Your task to perform on an android device: Is it going to rain today? Image 0: 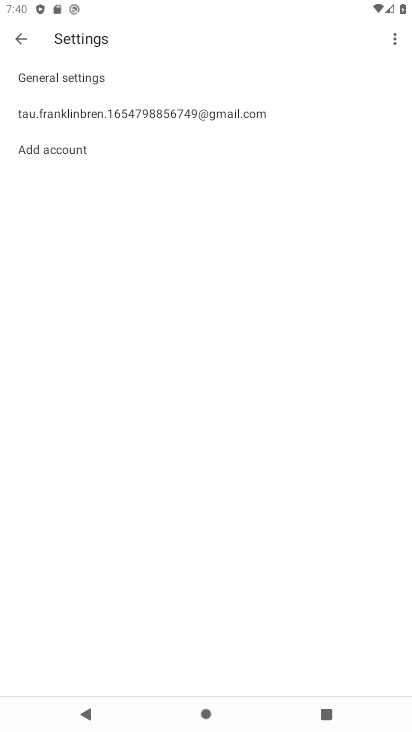
Step 0: press home button
Your task to perform on an android device: Is it going to rain today? Image 1: 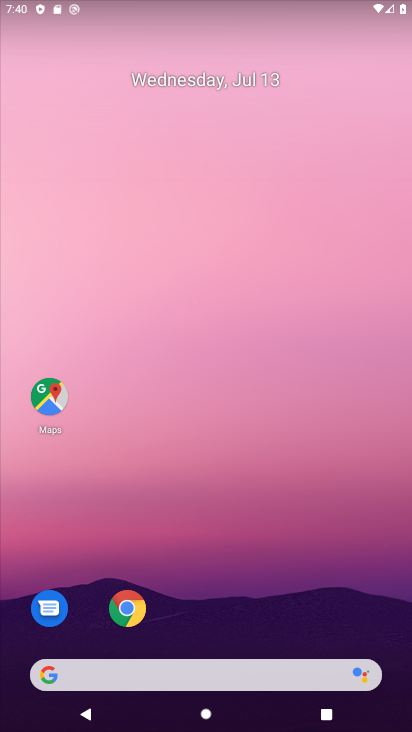
Step 1: click (203, 668)
Your task to perform on an android device: Is it going to rain today? Image 2: 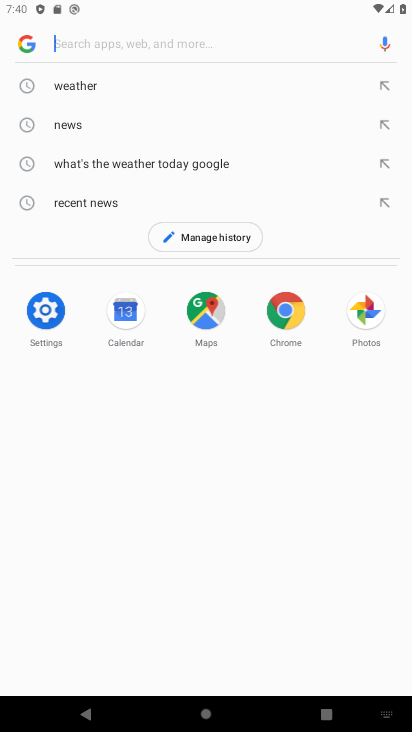
Step 2: click (68, 86)
Your task to perform on an android device: Is it going to rain today? Image 3: 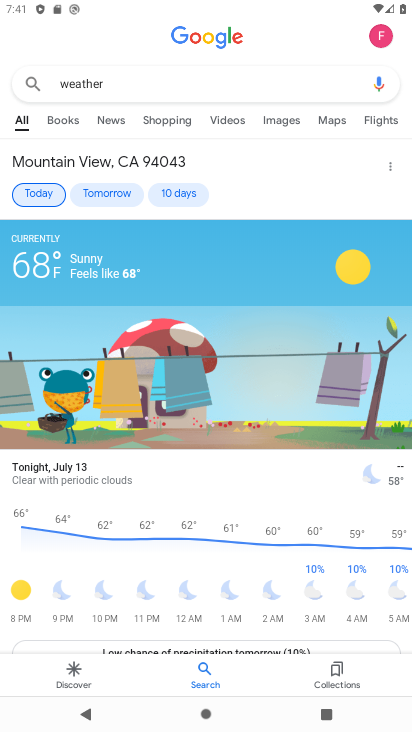
Step 3: task complete